Your task to perform on an android device: all mails in gmail Image 0: 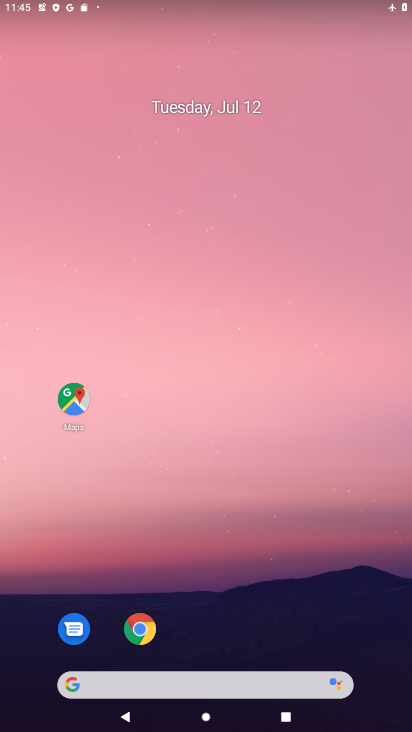
Step 0: drag from (281, 645) to (276, 175)
Your task to perform on an android device: all mails in gmail Image 1: 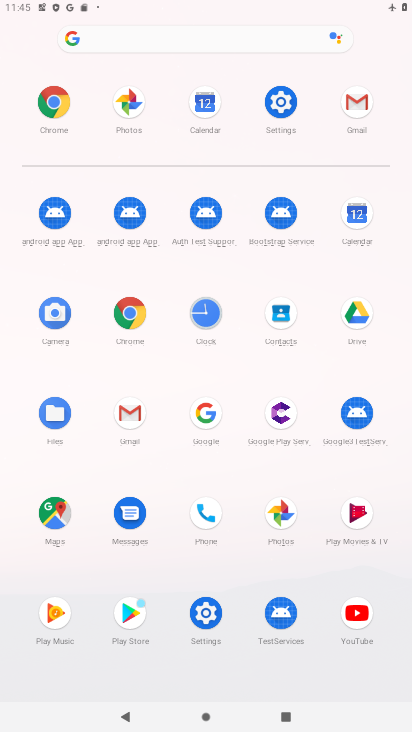
Step 1: click (350, 101)
Your task to perform on an android device: all mails in gmail Image 2: 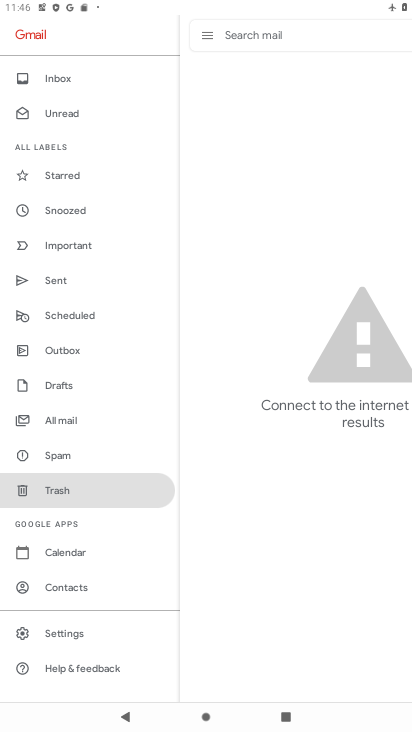
Step 2: click (66, 418)
Your task to perform on an android device: all mails in gmail Image 3: 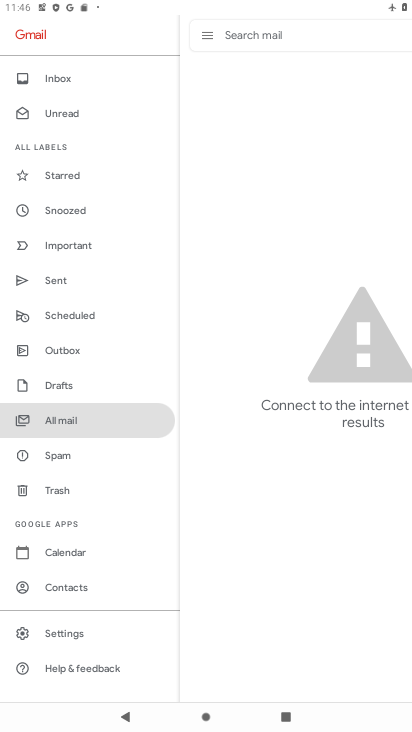
Step 3: task complete